Your task to perform on an android device: turn on priority inbox in the gmail app Image 0: 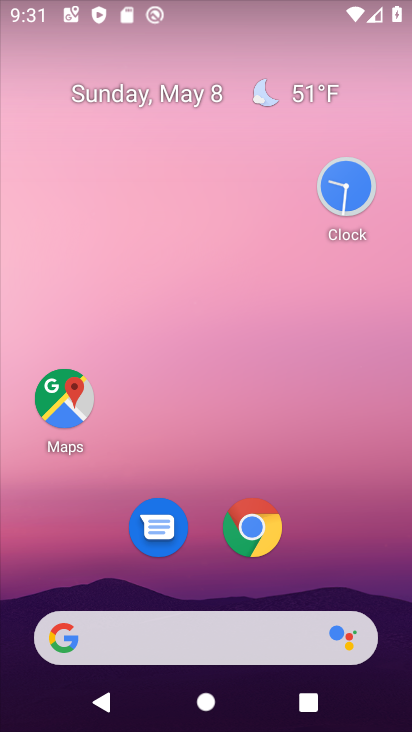
Step 0: drag from (297, 566) to (349, 203)
Your task to perform on an android device: turn on priority inbox in the gmail app Image 1: 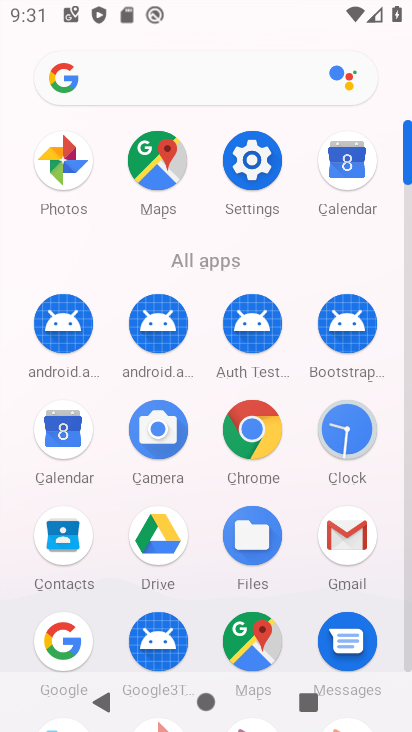
Step 1: click (344, 539)
Your task to perform on an android device: turn on priority inbox in the gmail app Image 2: 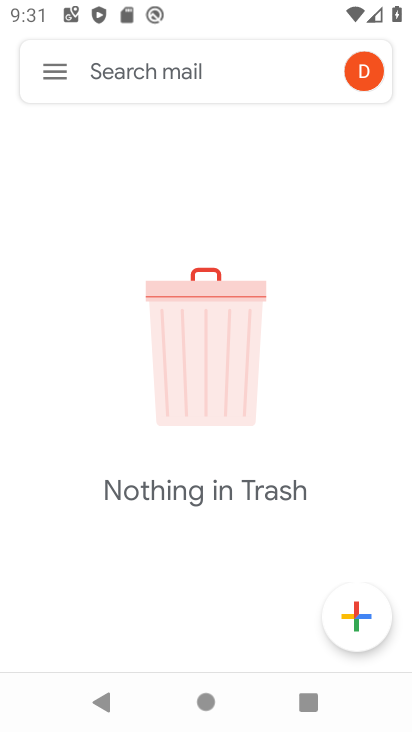
Step 2: click (51, 89)
Your task to perform on an android device: turn on priority inbox in the gmail app Image 3: 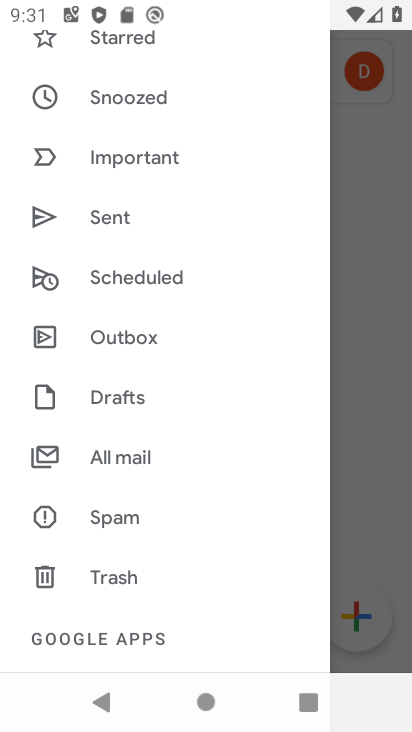
Step 3: drag from (20, 501) to (64, 229)
Your task to perform on an android device: turn on priority inbox in the gmail app Image 4: 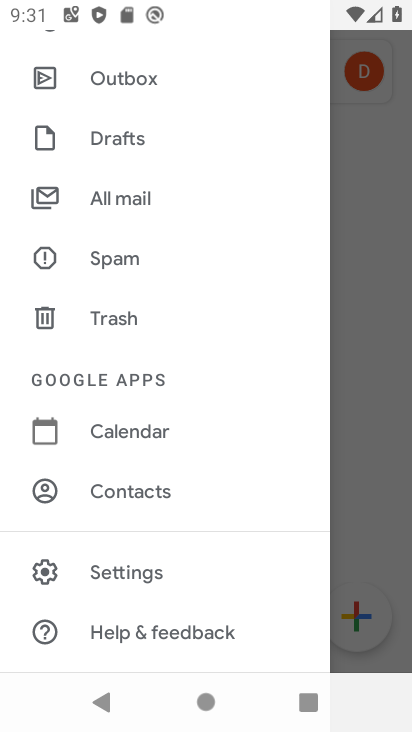
Step 4: click (41, 574)
Your task to perform on an android device: turn on priority inbox in the gmail app Image 5: 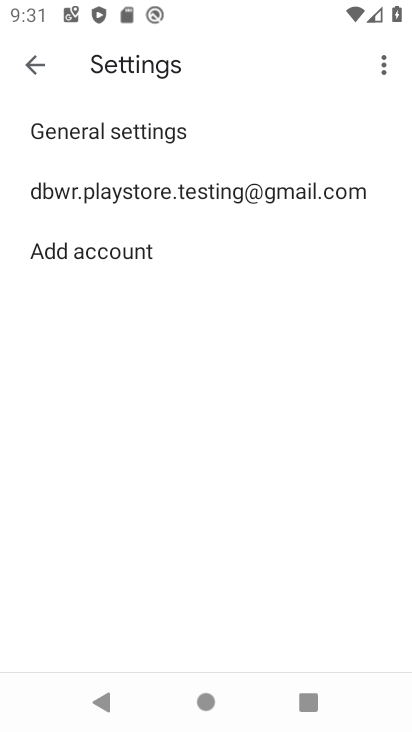
Step 5: click (92, 194)
Your task to perform on an android device: turn on priority inbox in the gmail app Image 6: 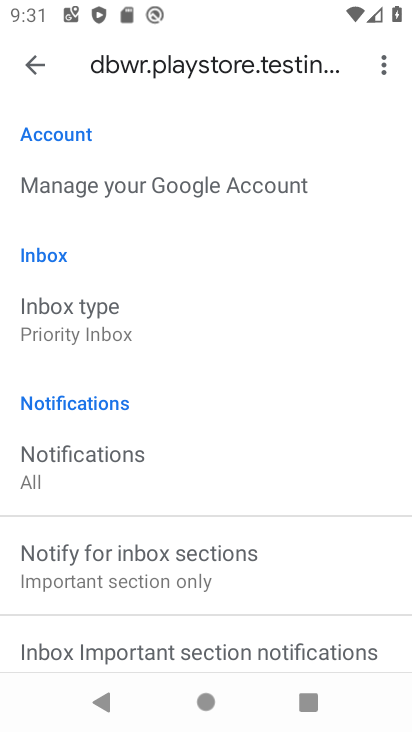
Step 6: click (39, 334)
Your task to perform on an android device: turn on priority inbox in the gmail app Image 7: 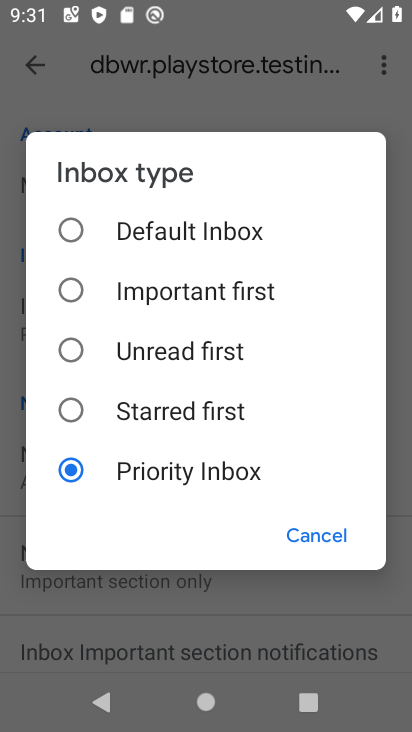
Step 7: click (210, 459)
Your task to perform on an android device: turn on priority inbox in the gmail app Image 8: 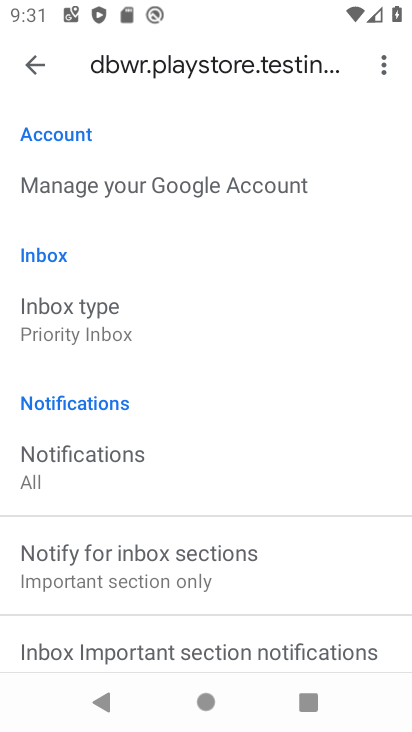
Step 8: task complete